Your task to perform on an android device: Open Yahoo.com Image 0: 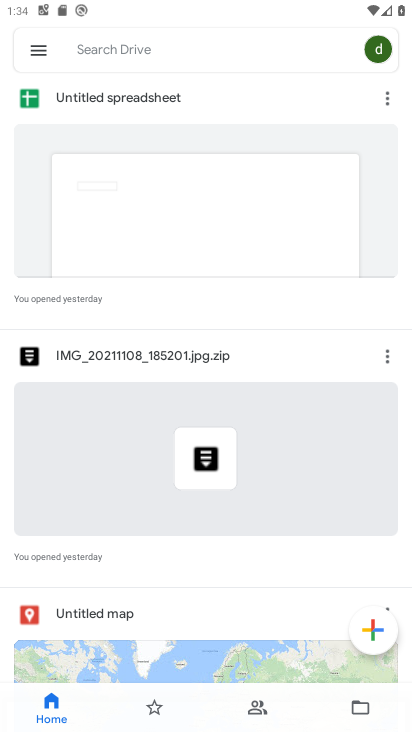
Step 0: press home button
Your task to perform on an android device: Open Yahoo.com Image 1: 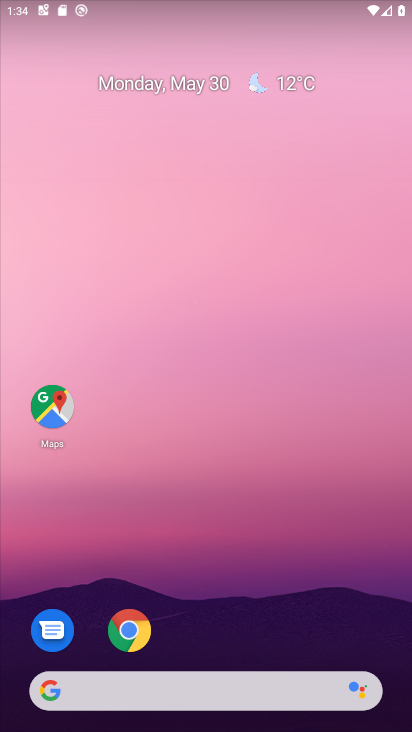
Step 1: click (133, 638)
Your task to perform on an android device: Open Yahoo.com Image 2: 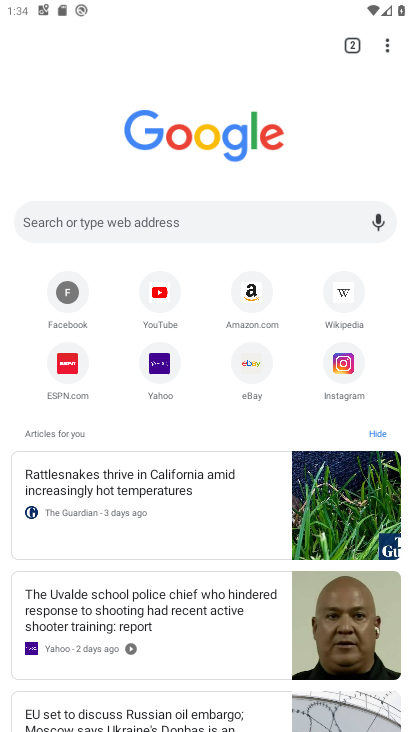
Step 2: click (152, 366)
Your task to perform on an android device: Open Yahoo.com Image 3: 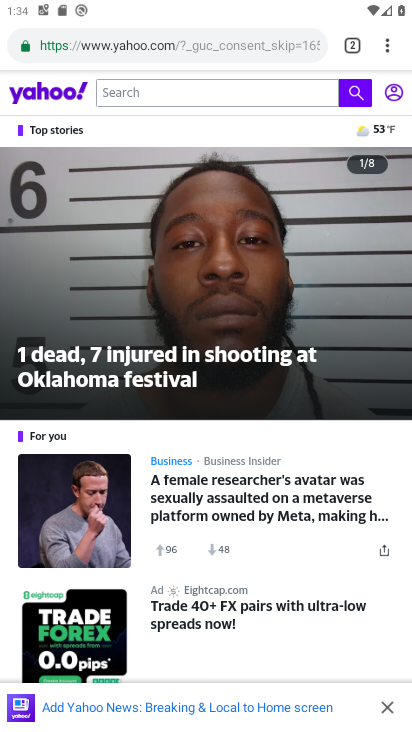
Step 3: task complete